Your task to perform on an android device: Open ESPN.com Image 0: 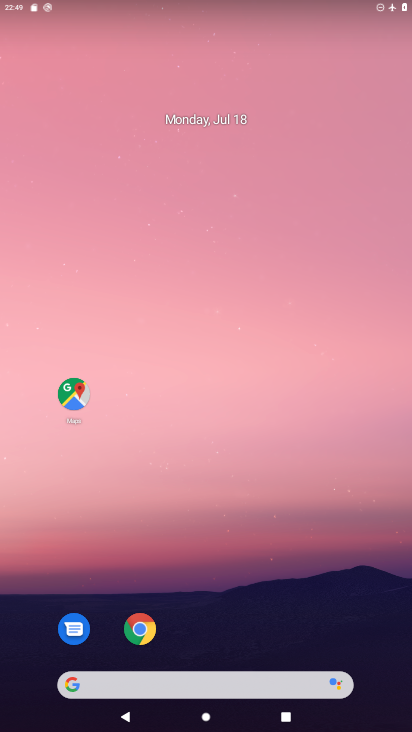
Step 0: drag from (304, 623) to (175, 86)
Your task to perform on an android device: Open ESPN.com Image 1: 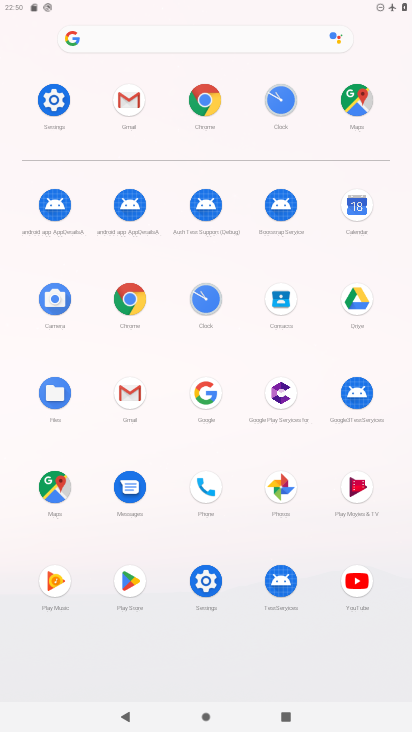
Step 1: click (200, 99)
Your task to perform on an android device: Open ESPN.com Image 2: 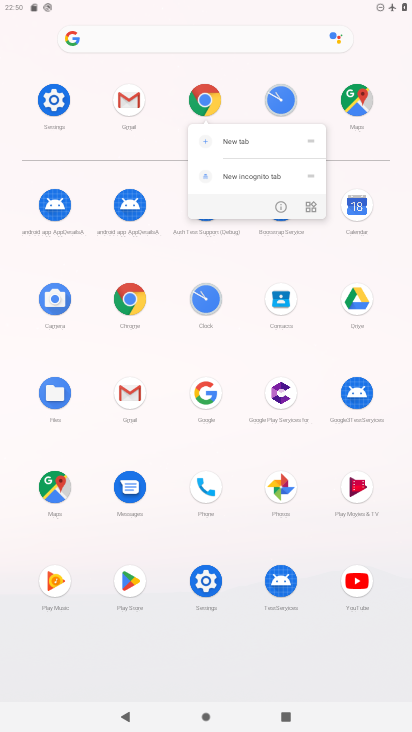
Step 2: click (207, 99)
Your task to perform on an android device: Open ESPN.com Image 3: 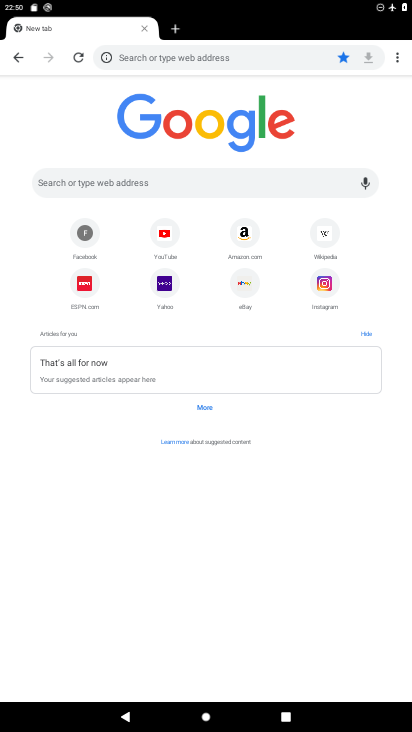
Step 3: click (86, 286)
Your task to perform on an android device: Open ESPN.com Image 4: 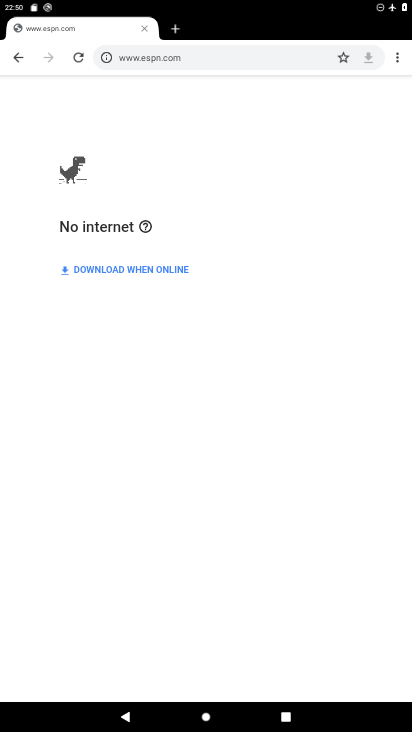
Step 4: task complete